Your task to perform on an android device: Open the phone app and click the voicemail tab. Image 0: 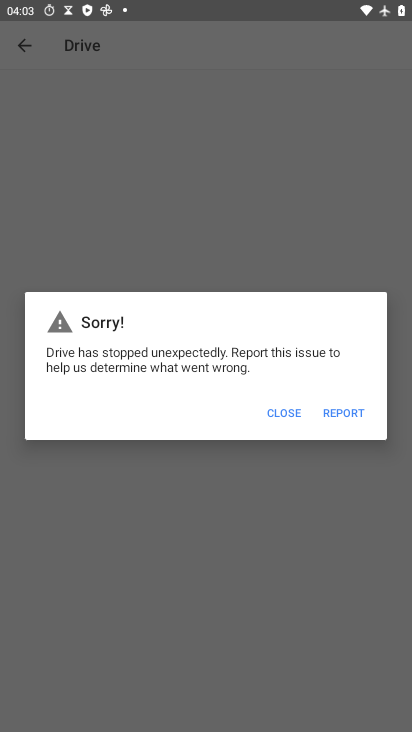
Step 0: press back button
Your task to perform on an android device: Open the phone app and click the voicemail tab. Image 1: 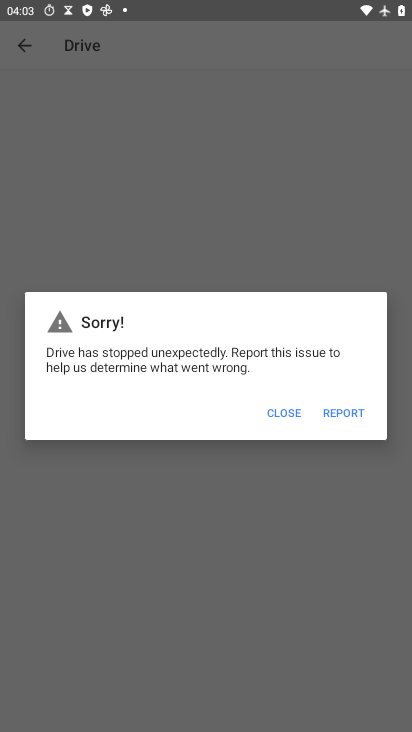
Step 1: press home button
Your task to perform on an android device: Open the phone app and click the voicemail tab. Image 2: 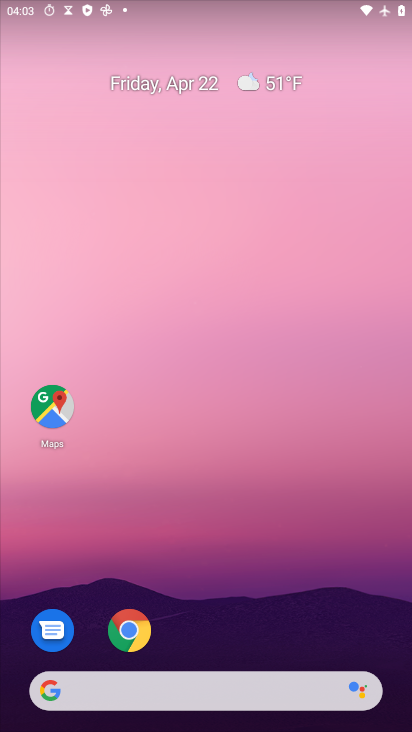
Step 2: drag from (258, 541) to (170, 32)
Your task to perform on an android device: Open the phone app and click the voicemail tab. Image 3: 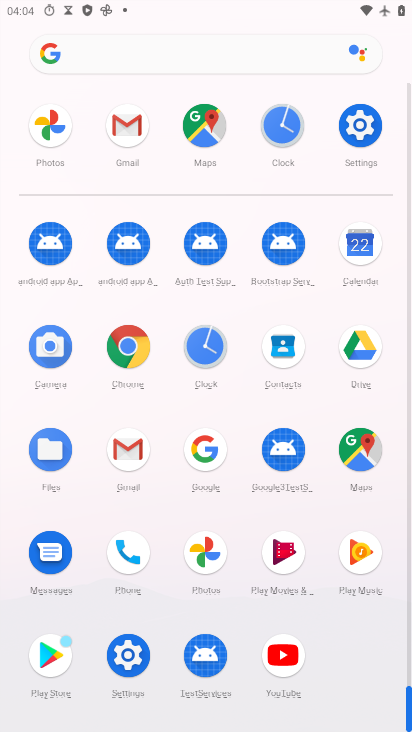
Step 3: drag from (14, 452) to (25, 196)
Your task to perform on an android device: Open the phone app and click the voicemail tab. Image 4: 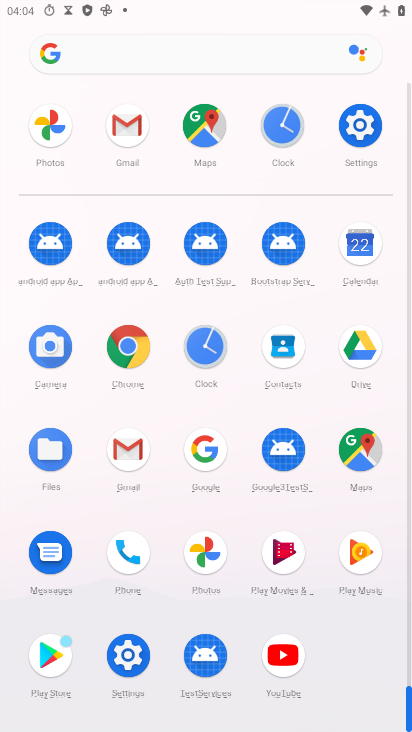
Step 4: drag from (19, 496) to (17, 324)
Your task to perform on an android device: Open the phone app and click the voicemail tab. Image 5: 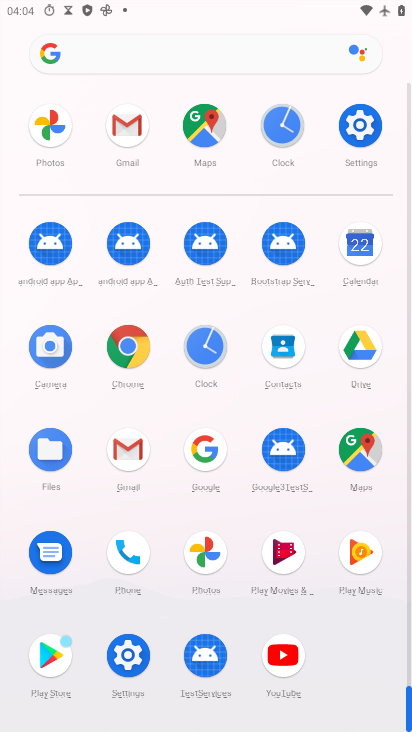
Step 5: click (119, 553)
Your task to perform on an android device: Open the phone app and click the voicemail tab. Image 6: 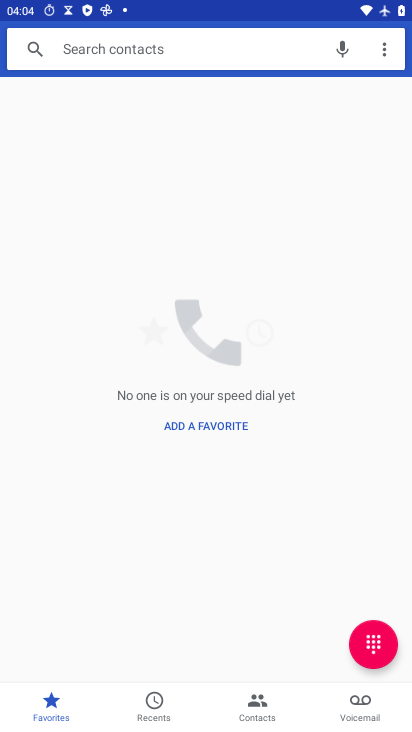
Step 6: click (366, 710)
Your task to perform on an android device: Open the phone app and click the voicemail tab. Image 7: 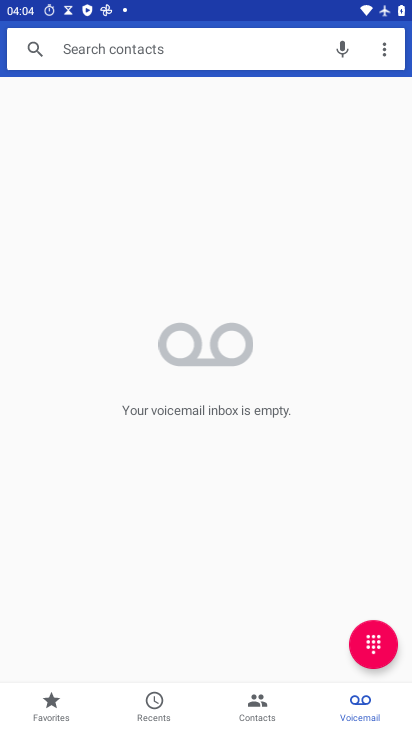
Step 7: task complete